Your task to perform on an android device: Open the stopwatch Image 0: 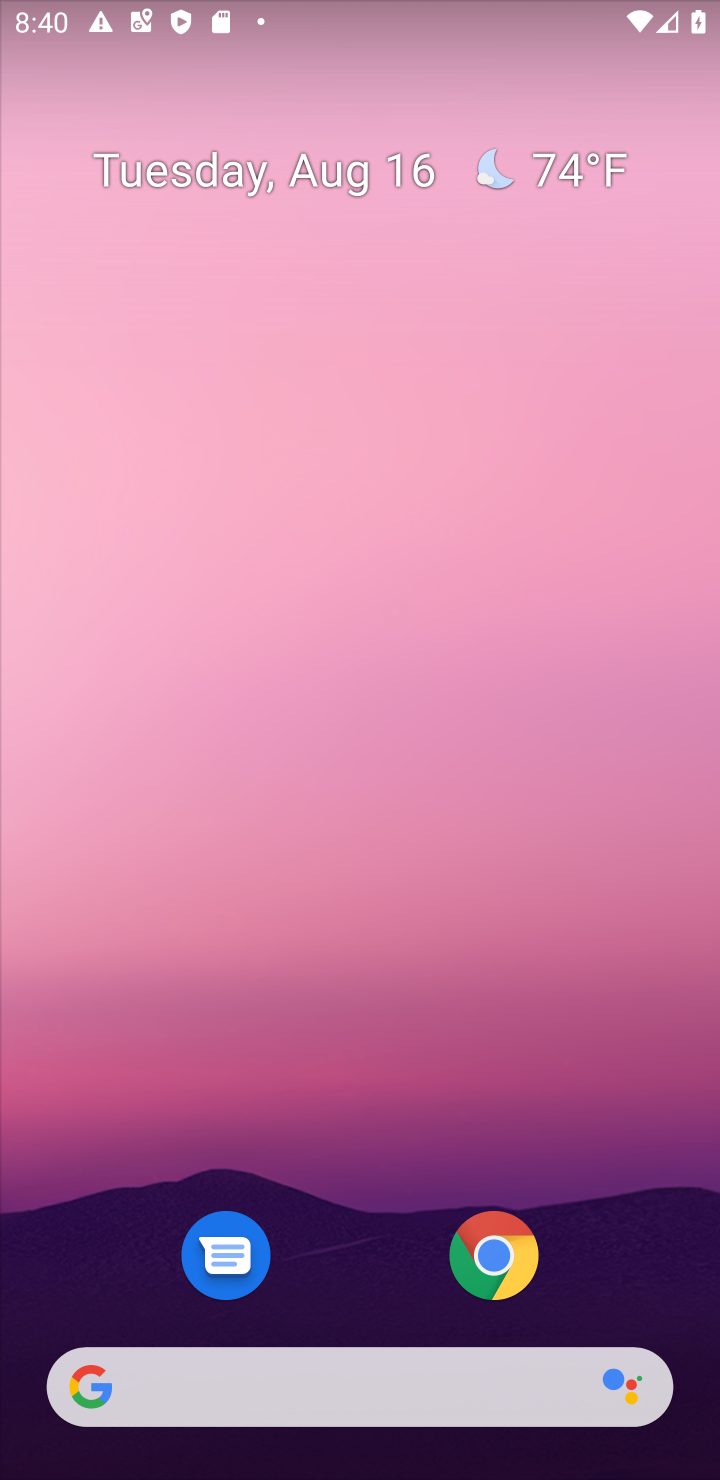
Step 0: drag from (357, 1389) to (447, 6)
Your task to perform on an android device: Open the stopwatch Image 1: 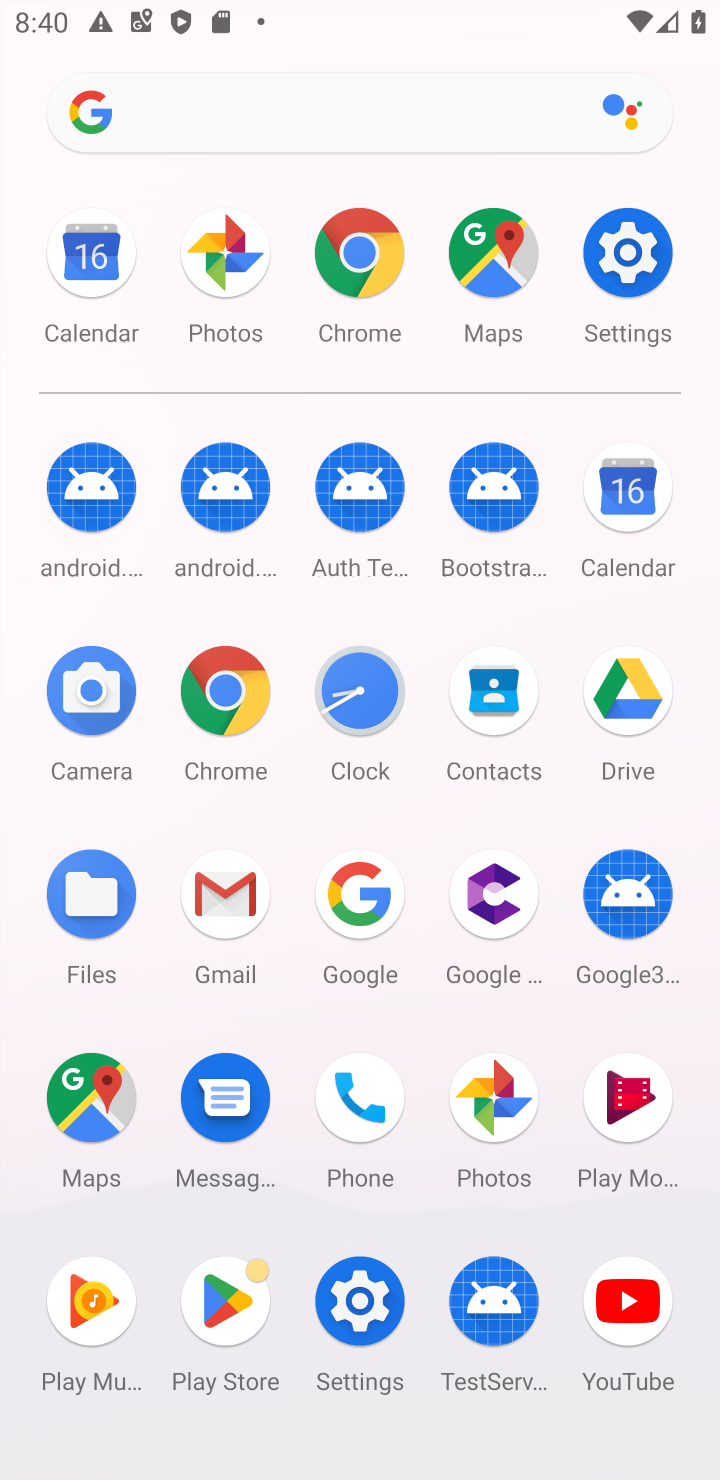
Step 1: click (314, 712)
Your task to perform on an android device: Open the stopwatch Image 2: 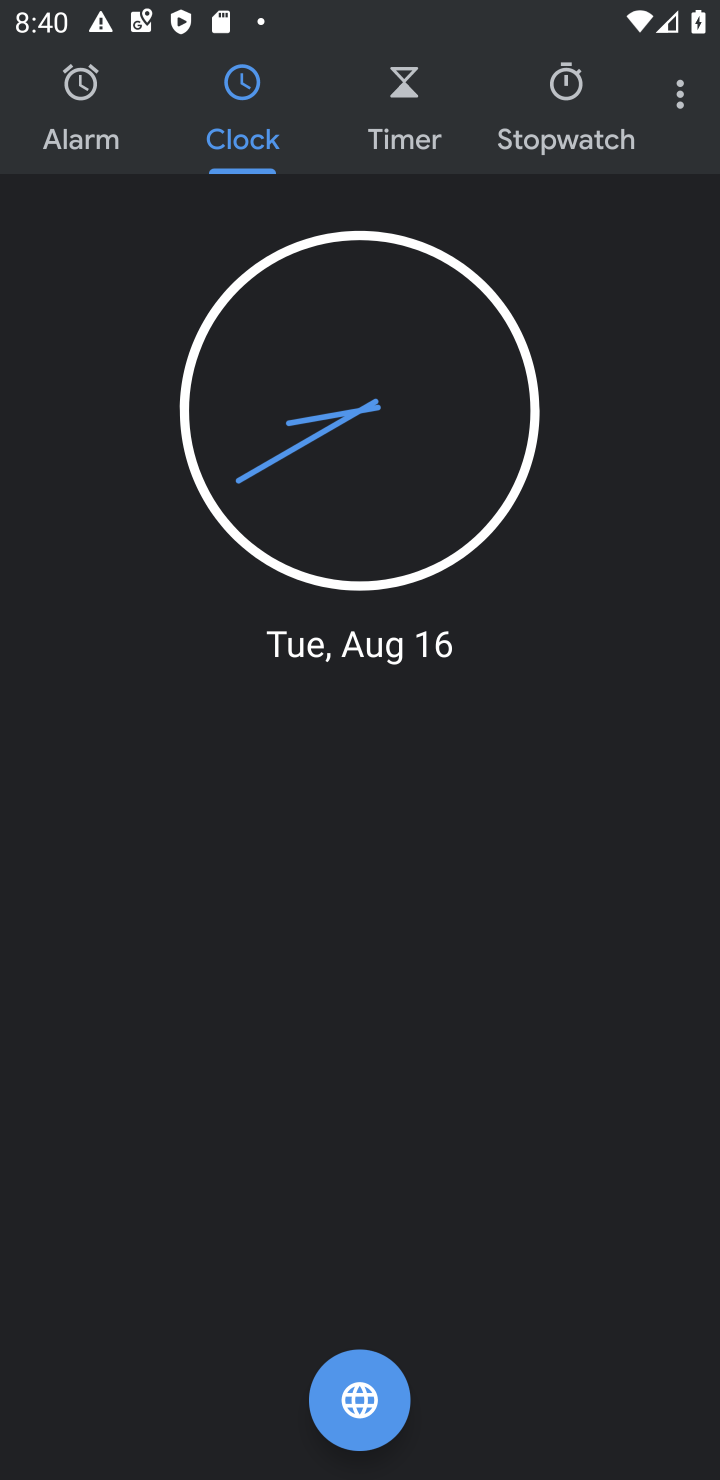
Step 2: click (559, 103)
Your task to perform on an android device: Open the stopwatch Image 3: 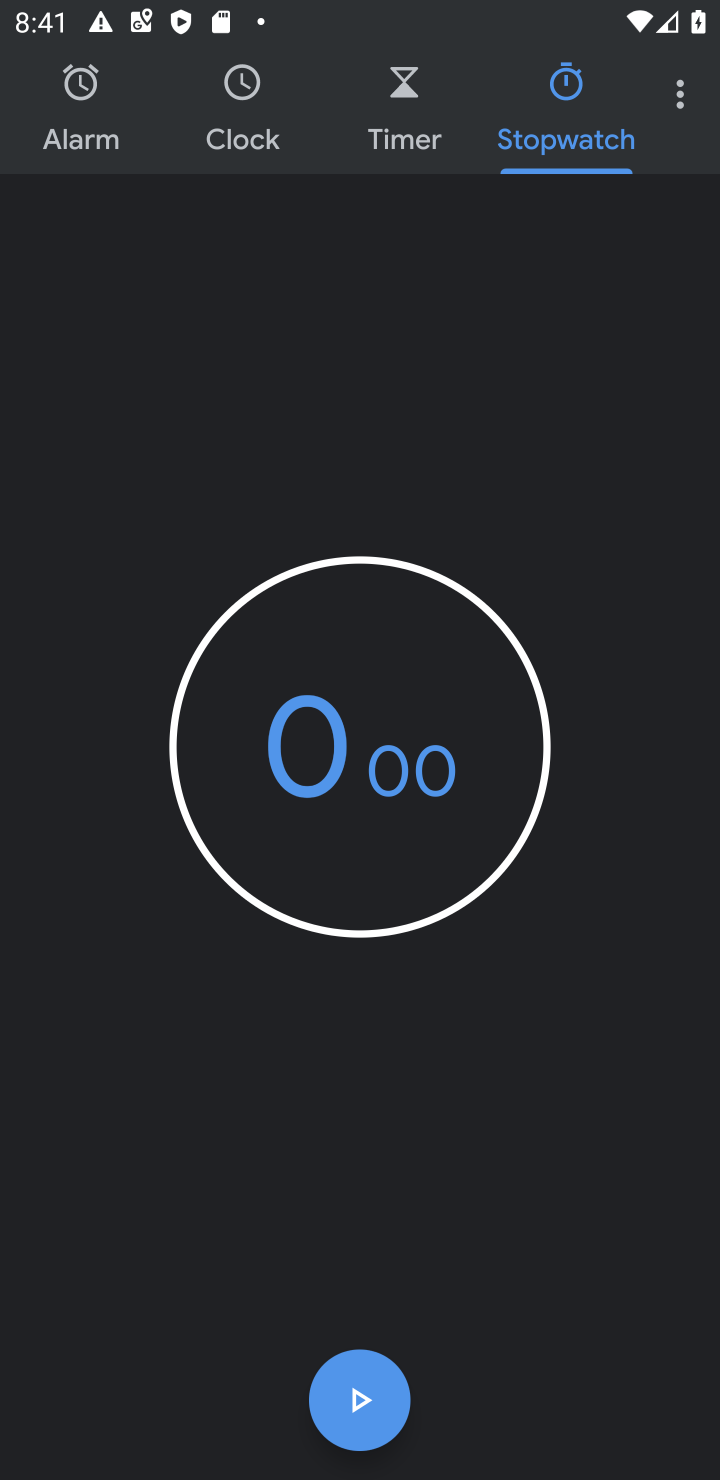
Step 3: task complete